Your task to perform on an android device: clear history in the chrome app Image 0: 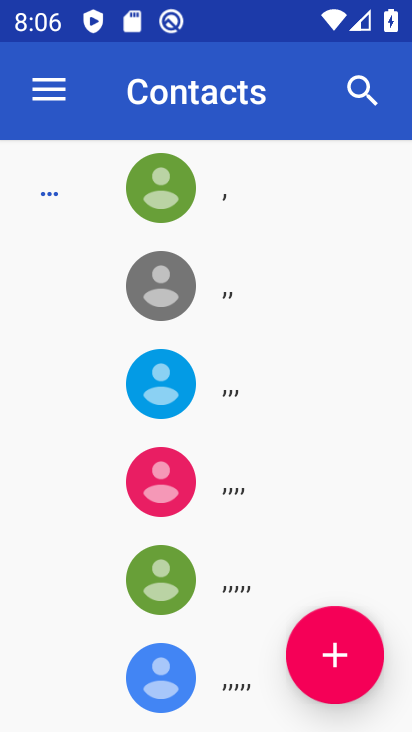
Step 0: press home button
Your task to perform on an android device: clear history in the chrome app Image 1: 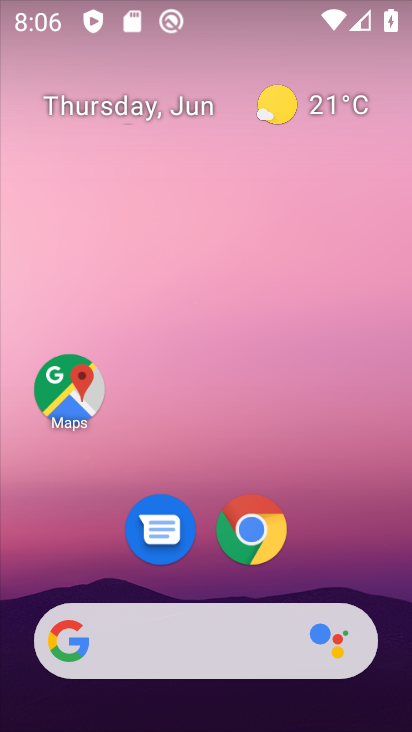
Step 1: click (253, 532)
Your task to perform on an android device: clear history in the chrome app Image 2: 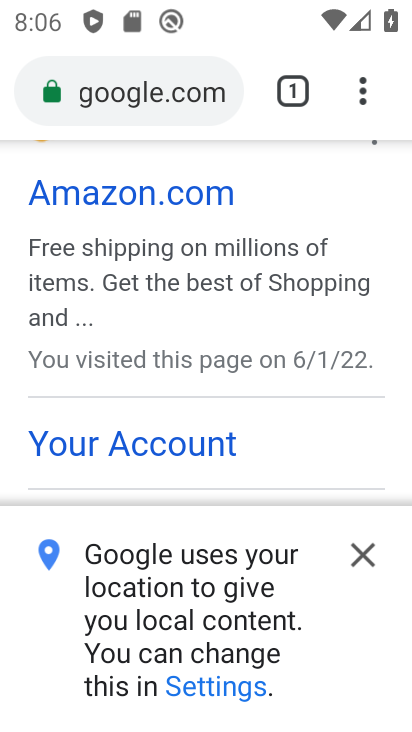
Step 2: click (367, 77)
Your task to perform on an android device: clear history in the chrome app Image 3: 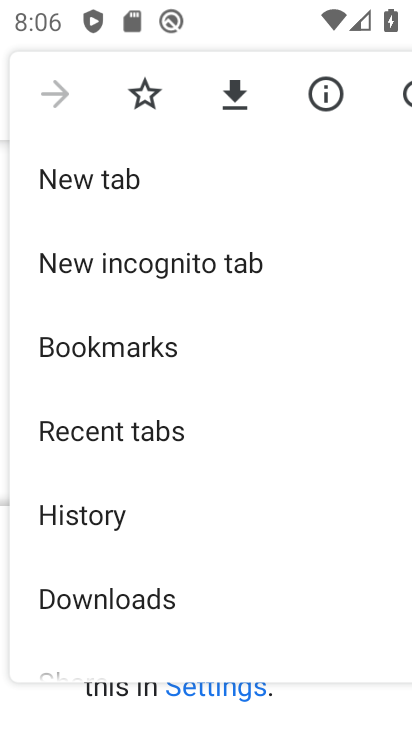
Step 3: click (84, 512)
Your task to perform on an android device: clear history in the chrome app Image 4: 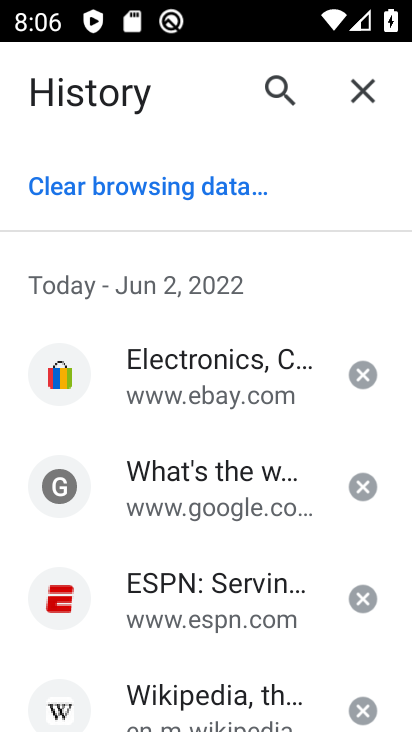
Step 4: click (144, 180)
Your task to perform on an android device: clear history in the chrome app Image 5: 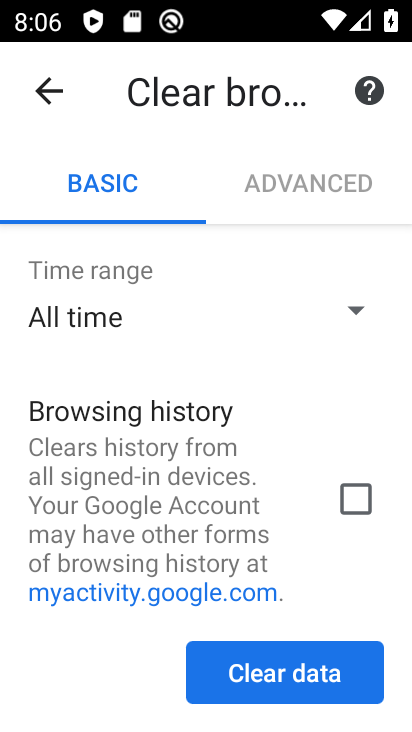
Step 5: click (357, 496)
Your task to perform on an android device: clear history in the chrome app Image 6: 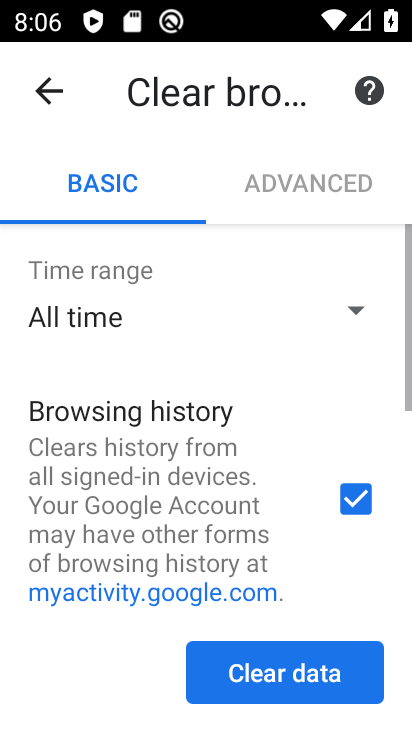
Step 6: drag from (290, 583) to (275, 266)
Your task to perform on an android device: clear history in the chrome app Image 7: 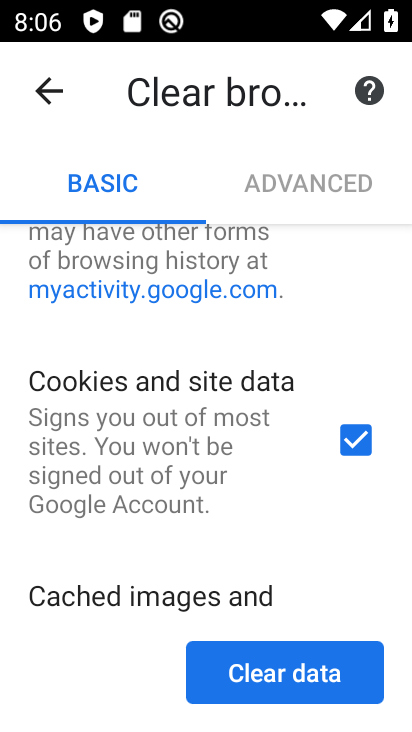
Step 7: drag from (287, 577) to (265, 299)
Your task to perform on an android device: clear history in the chrome app Image 8: 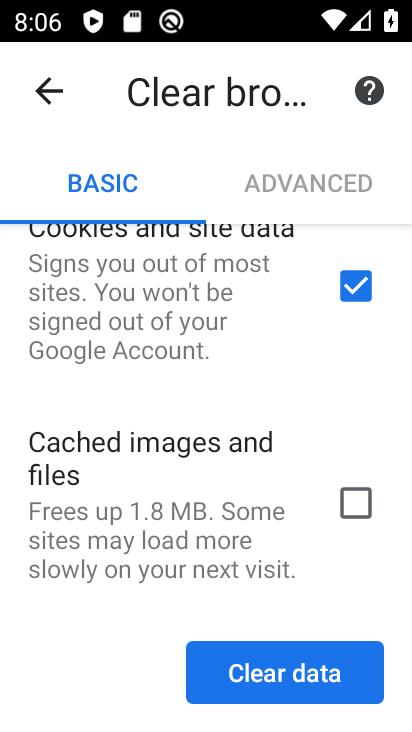
Step 8: click (360, 507)
Your task to perform on an android device: clear history in the chrome app Image 9: 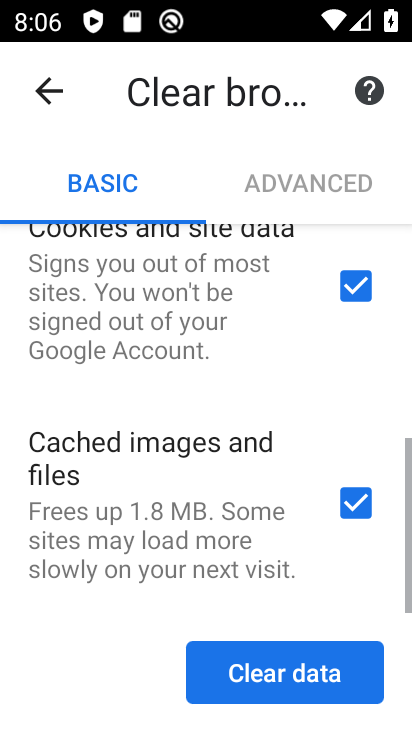
Step 9: click (262, 681)
Your task to perform on an android device: clear history in the chrome app Image 10: 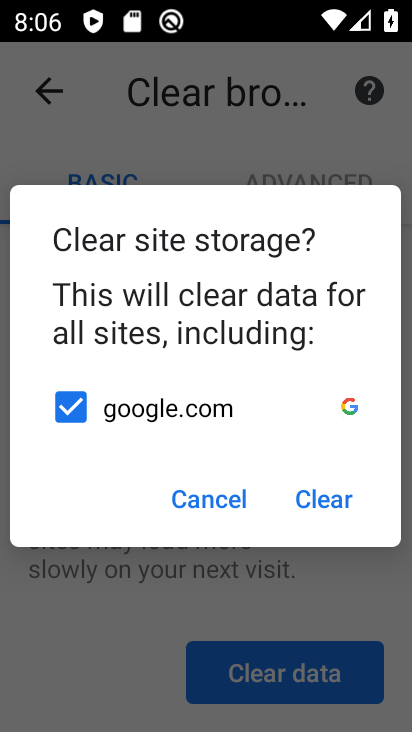
Step 10: click (320, 480)
Your task to perform on an android device: clear history in the chrome app Image 11: 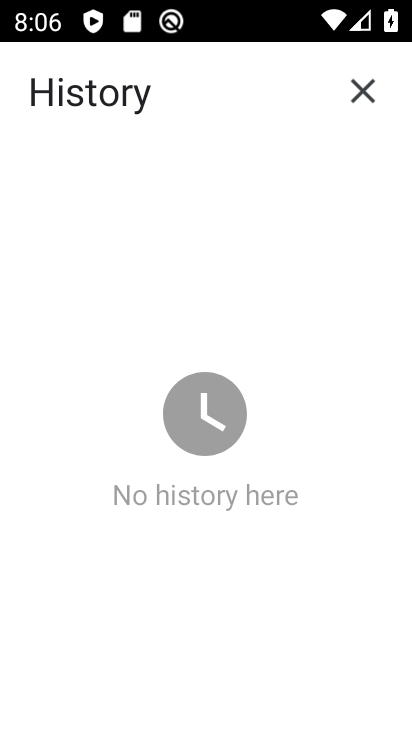
Step 11: task complete